Your task to perform on an android device: turn on the 12-hour format for clock Image 0: 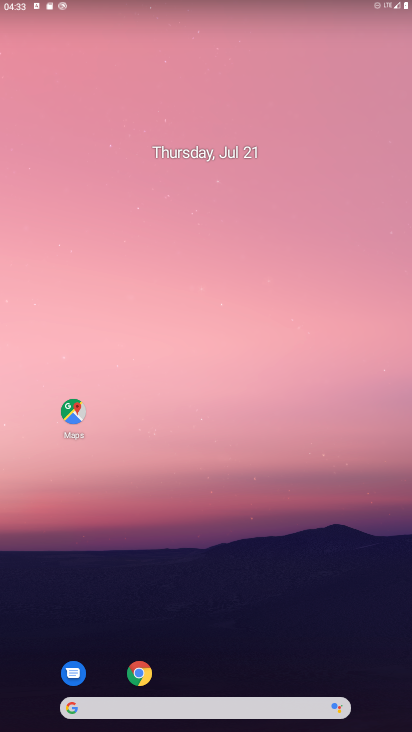
Step 0: drag from (390, 683) to (352, 159)
Your task to perform on an android device: turn on the 12-hour format for clock Image 1: 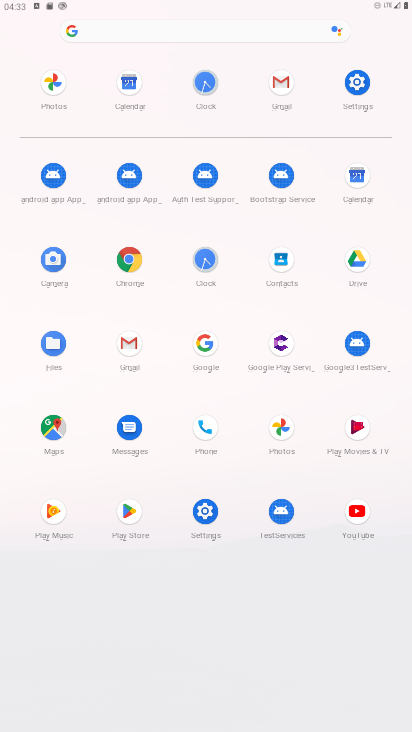
Step 1: click (204, 260)
Your task to perform on an android device: turn on the 12-hour format for clock Image 2: 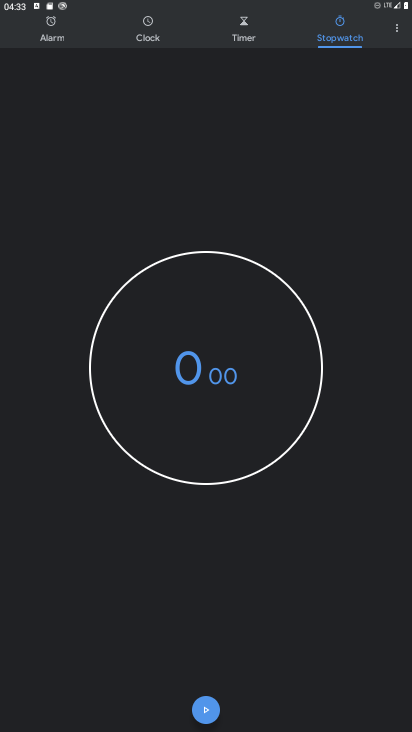
Step 2: click (397, 33)
Your task to perform on an android device: turn on the 12-hour format for clock Image 3: 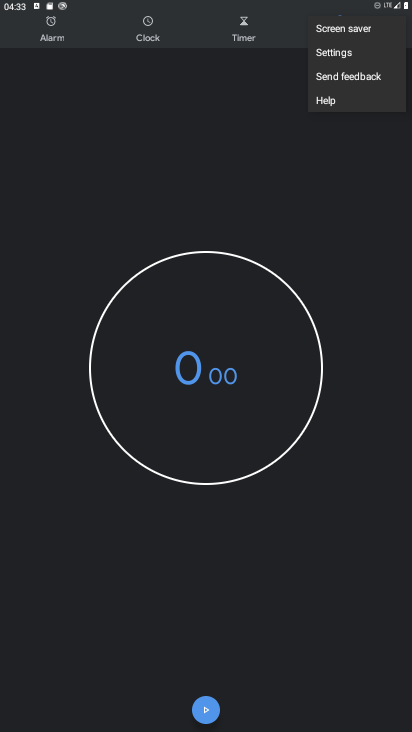
Step 3: click (330, 55)
Your task to perform on an android device: turn on the 12-hour format for clock Image 4: 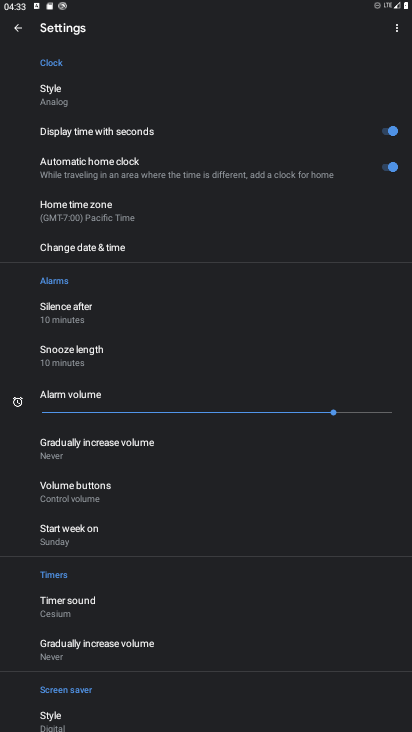
Step 4: click (97, 251)
Your task to perform on an android device: turn on the 12-hour format for clock Image 5: 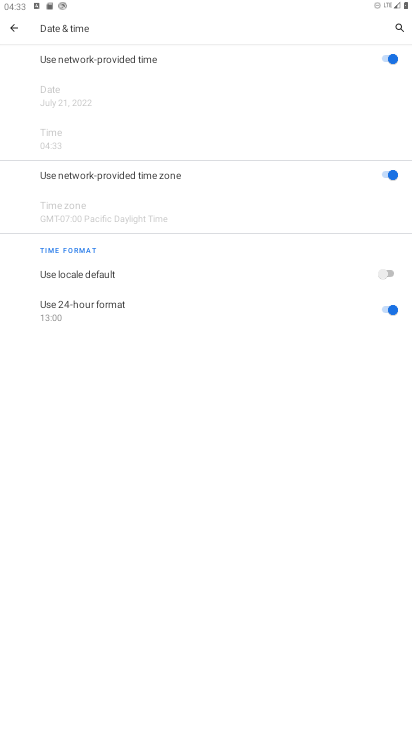
Step 5: click (389, 271)
Your task to perform on an android device: turn on the 12-hour format for clock Image 6: 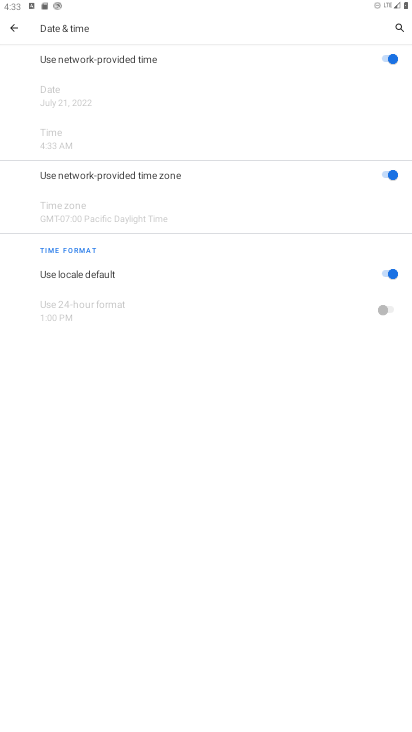
Step 6: task complete